Your task to perform on an android device: Set the phone to "Do not disturb". Image 0: 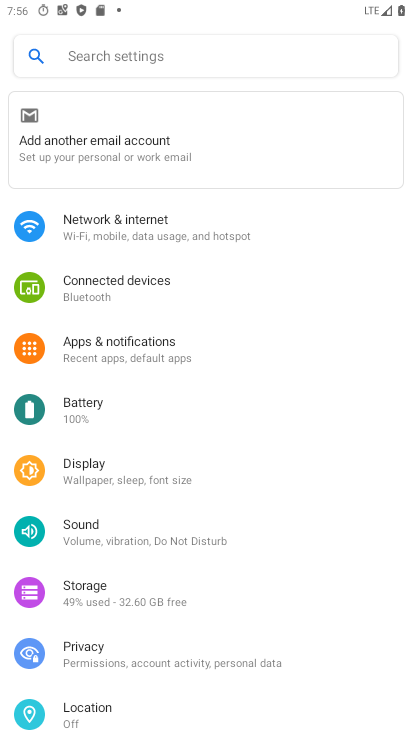
Step 0: press home button
Your task to perform on an android device: Set the phone to "Do not disturb". Image 1: 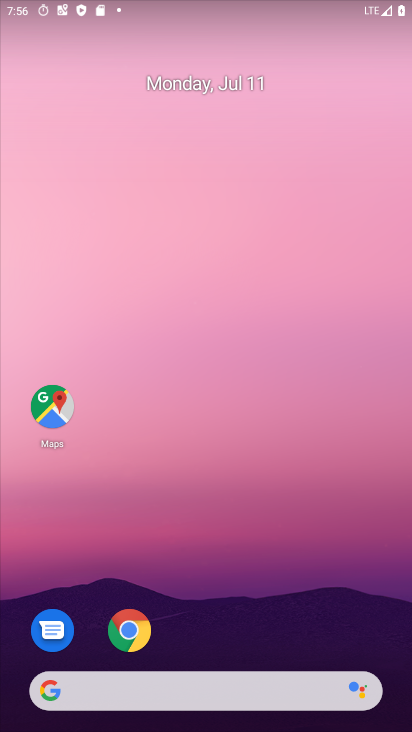
Step 1: drag from (159, 691) to (285, 243)
Your task to perform on an android device: Set the phone to "Do not disturb". Image 2: 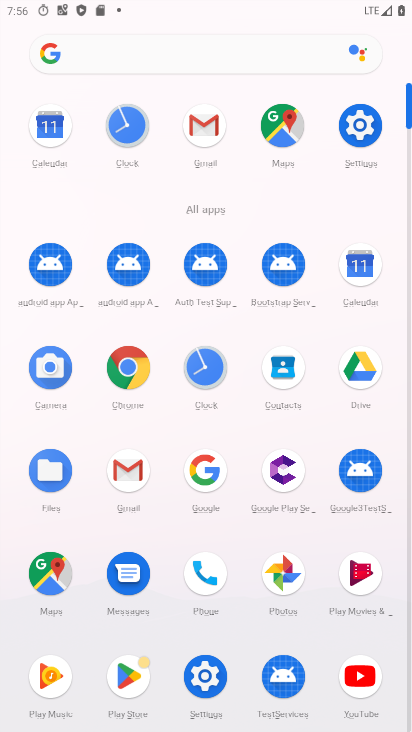
Step 2: click (365, 126)
Your task to perform on an android device: Set the phone to "Do not disturb". Image 3: 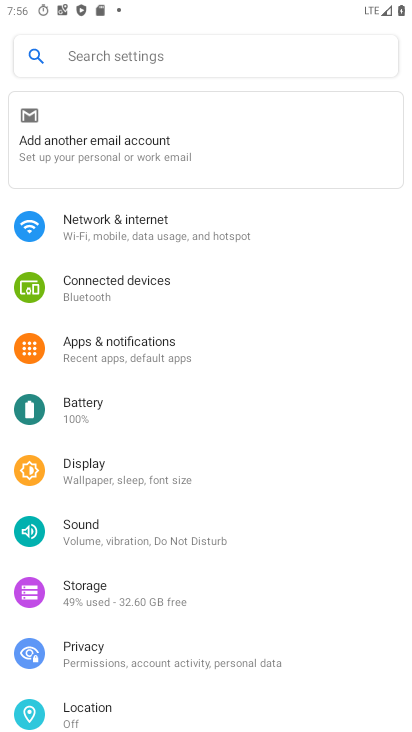
Step 3: click (94, 541)
Your task to perform on an android device: Set the phone to "Do not disturb". Image 4: 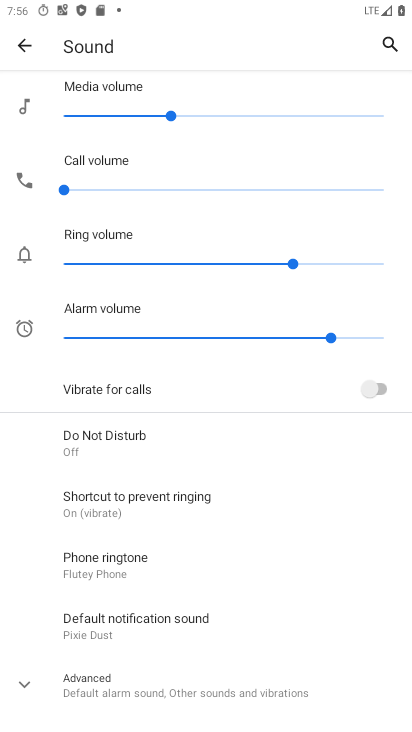
Step 4: click (124, 443)
Your task to perform on an android device: Set the phone to "Do not disturb". Image 5: 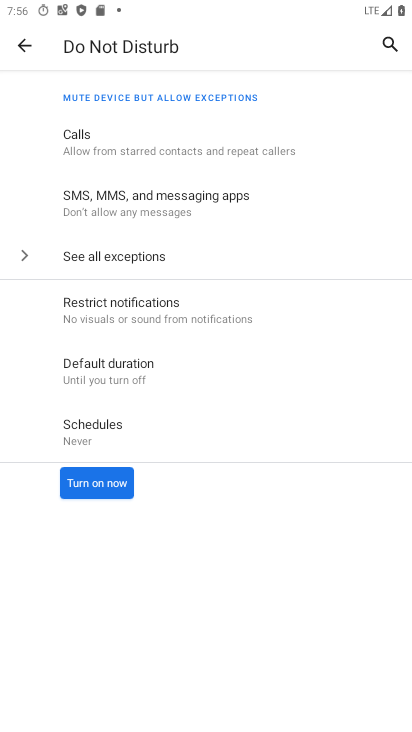
Step 5: click (95, 472)
Your task to perform on an android device: Set the phone to "Do not disturb". Image 6: 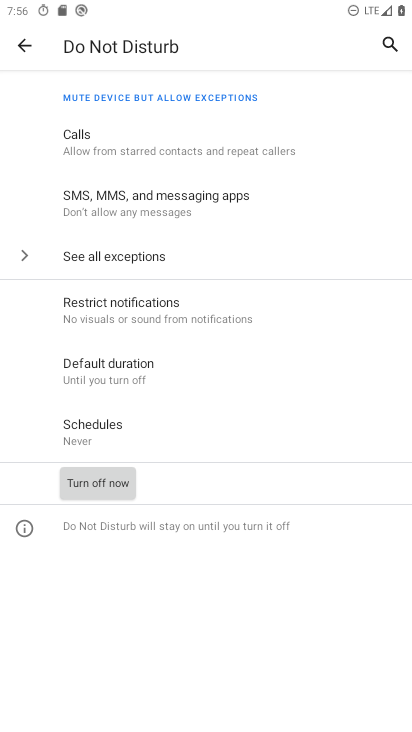
Step 6: task complete